Your task to perform on an android device: read, delete, or share a saved page in the chrome app Image 0: 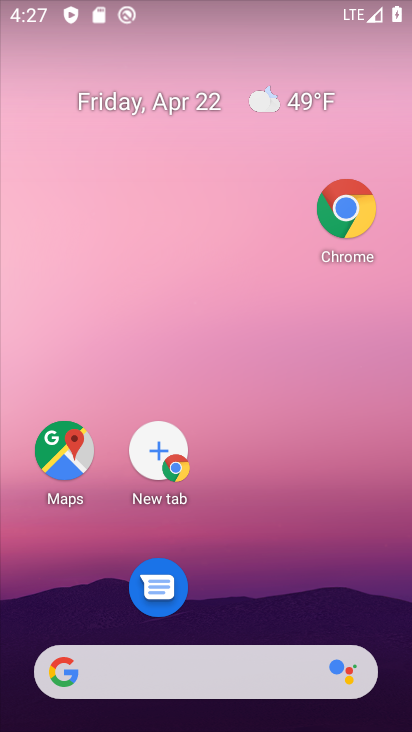
Step 0: click (223, 150)
Your task to perform on an android device: read, delete, or share a saved page in the chrome app Image 1: 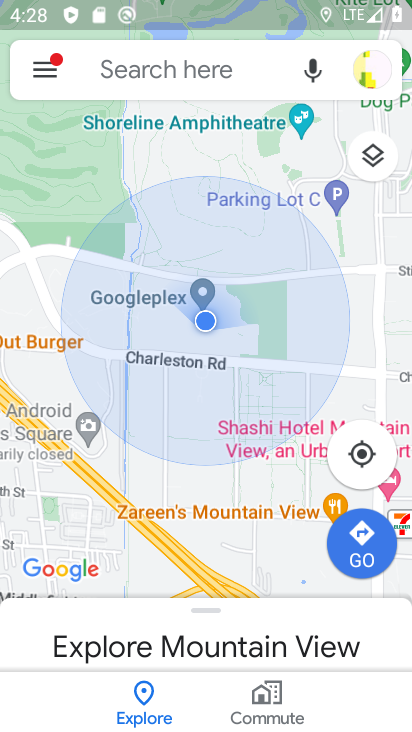
Step 1: press home button
Your task to perform on an android device: read, delete, or share a saved page in the chrome app Image 2: 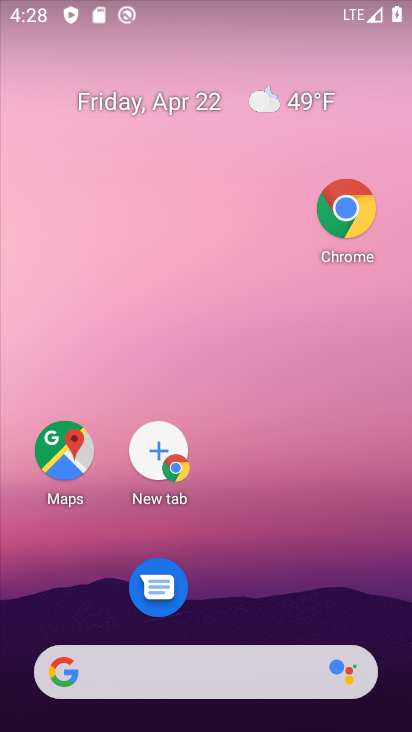
Step 2: click (339, 211)
Your task to perform on an android device: read, delete, or share a saved page in the chrome app Image 3: 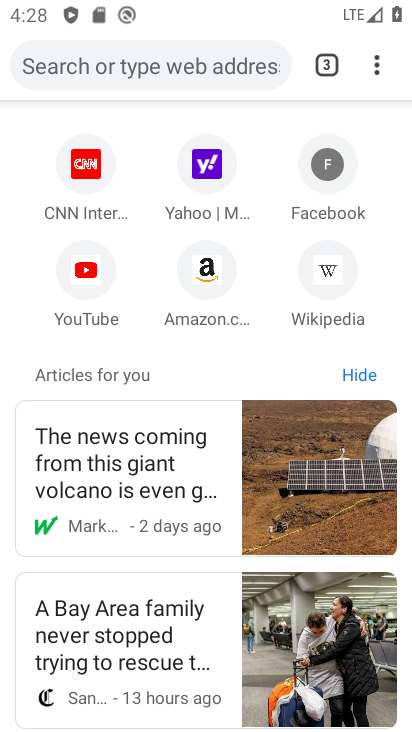
Step 3: click (370, 38)
Your task to perform on an android device: read, delete, or share a saved page in the chrome app Image 4: 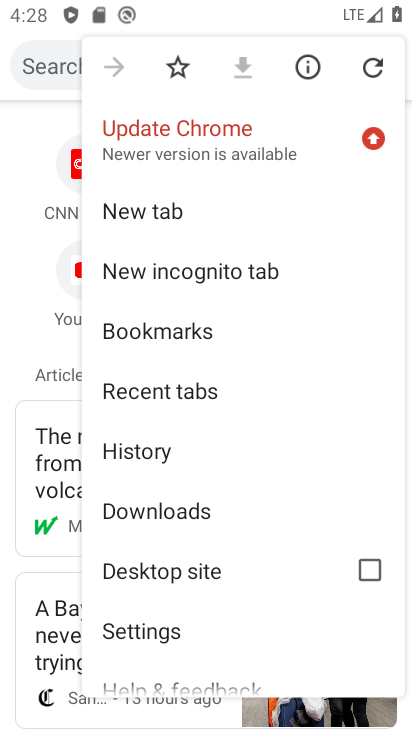
Step 4: click (188, 520)
Your task to perform on an android device: read, delete, or share a saved page in the chrome app Image 5: 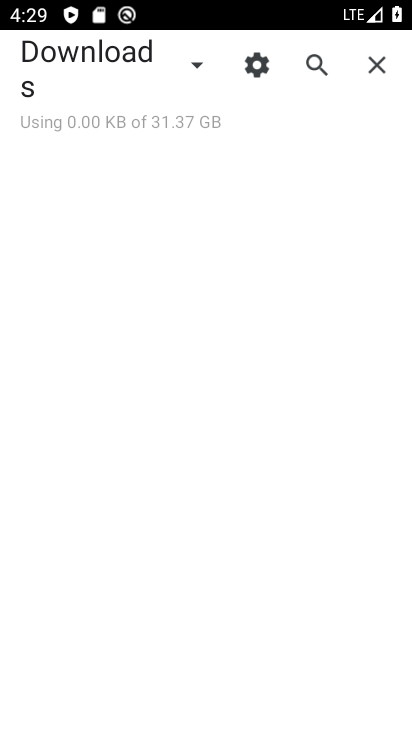
Step 5: task complete